Your task to perform on an android device: Open settings on Google Maps Image 0: 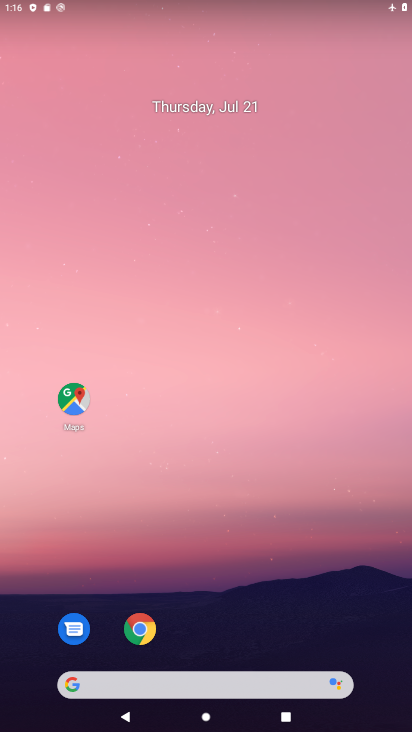
Step 0: click (76, 400)
Your task to perform on an android device: Open settings on Google Maps Image 1: 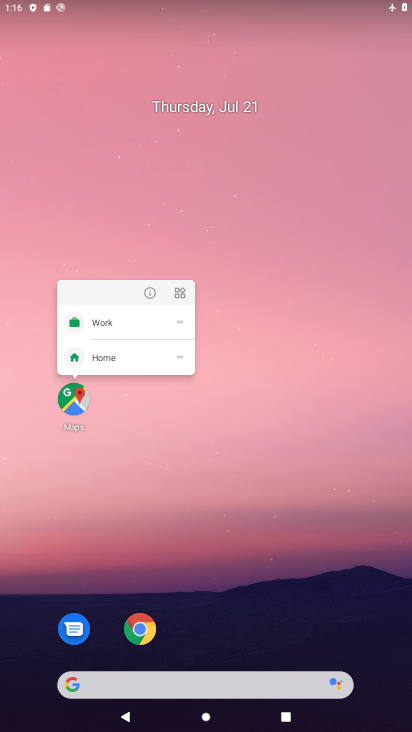
Step 1: click (79, 416)
Your task to perform on an android device: Open settings on Google Maps Image 2: 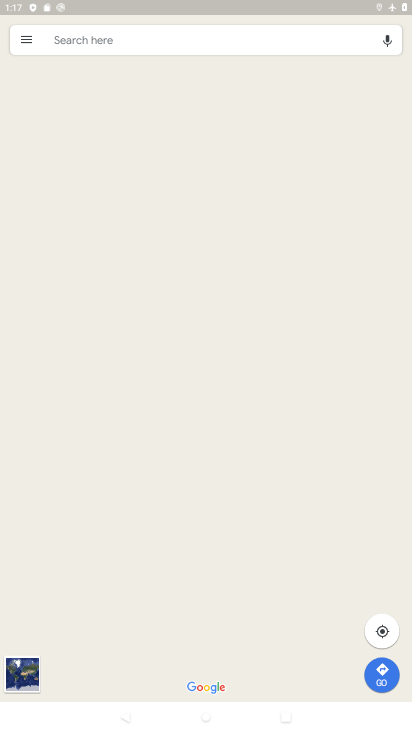
Step 2: click (22, 31)
Your task to perform on an android device: Open settings on Google Maps Image 3: 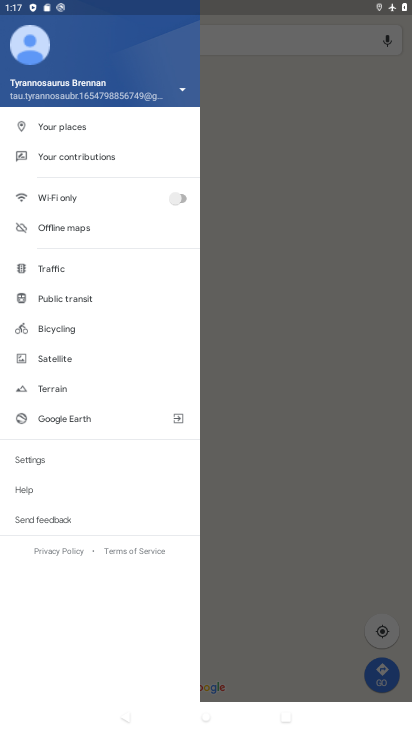
Step 3: click (43, 460)
Your task to perform on an android device: Open settings on Google Maps Image 4: 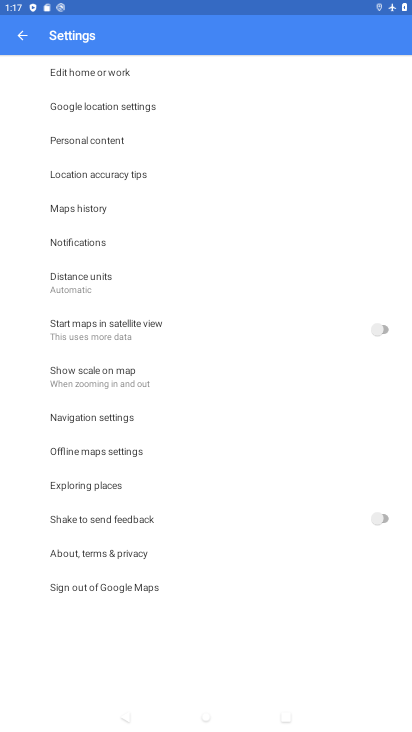
Step 4: task complete